Your task to perform on an android device: turn vacation reply on in the gmail app Image 0: 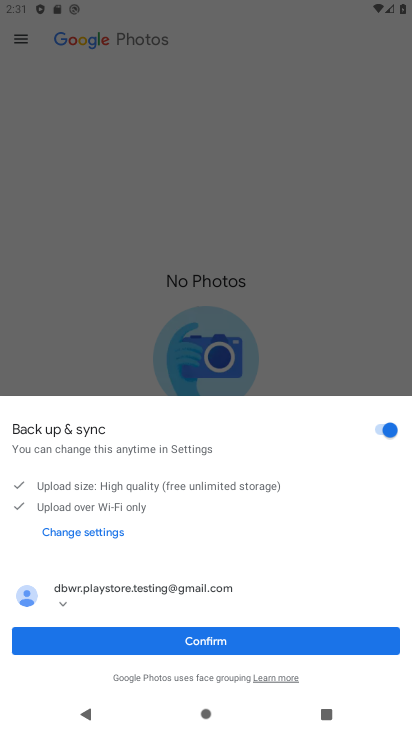
Step 0: press home button
Your task to perform on an android device: turn vacation reply on in the gmail app Image 1: 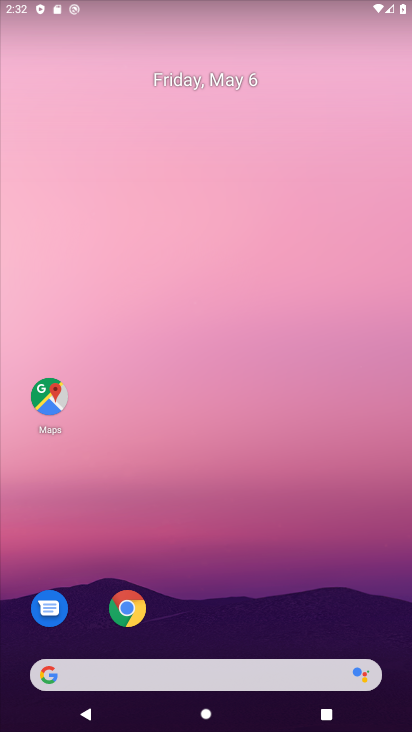
Step 1: drag from (207, 608) to (216, 6)
Your task to perform on an android device: turn vacation reply on in the gmail app Image 2: 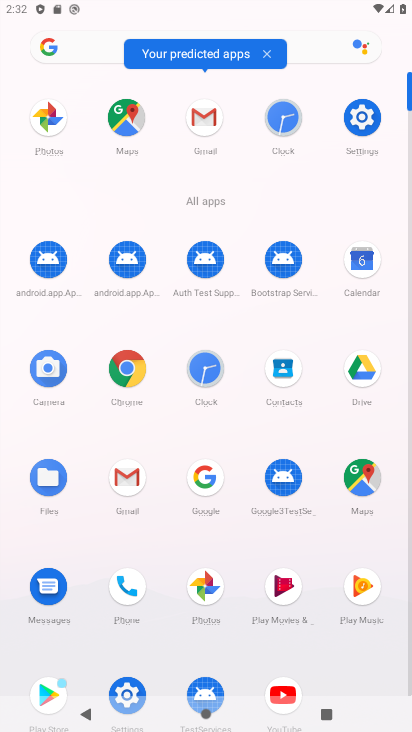
Step 2: click (121, 499)
Your task to perform on an android device: turn vacation reply on in the gmail app Image 3: 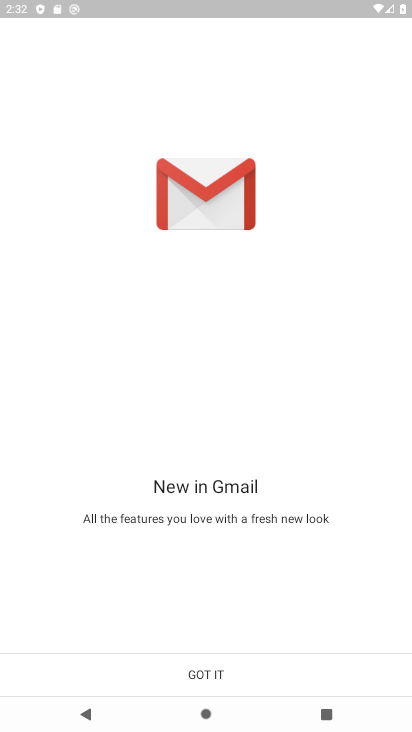
Step 3: click (227, 665)
Your task to perform on an android device: turn vacation reply on in the gmail app Image 4: 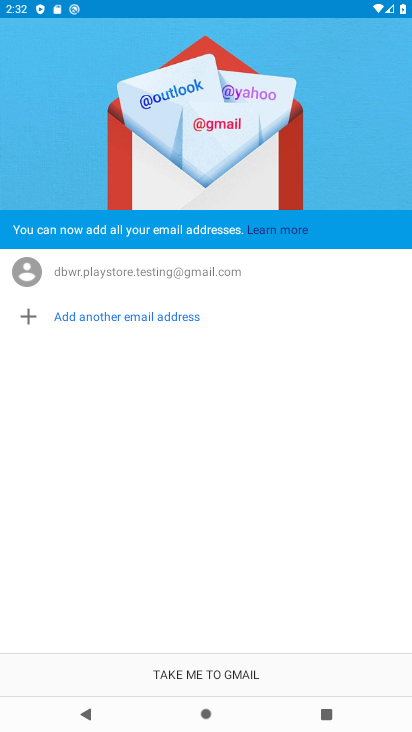
Step 4: click (190, 670)
Your task to perform on an android device: turn vacation reply on in the gmail app Image 5: 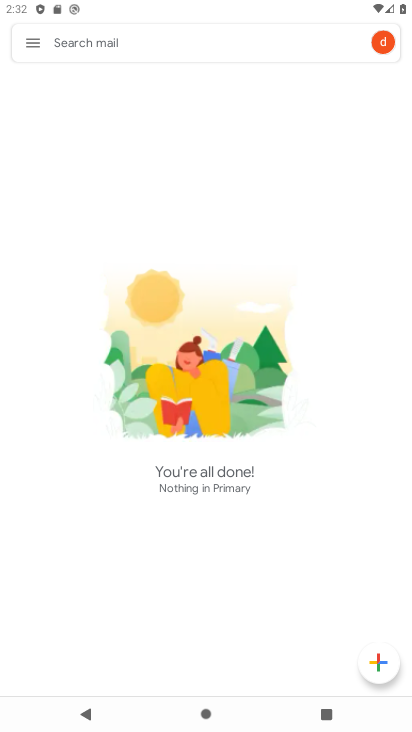
Step 5: click (41, 42)
Your task to perform on an android device: turn vacation reply on in the gmail app Image 6: 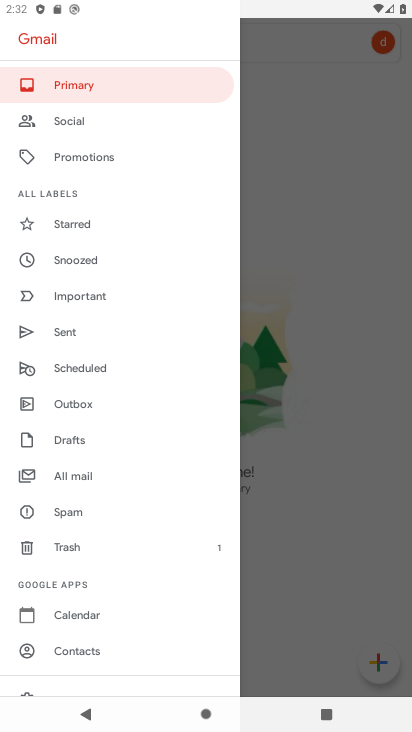
Step 6: drag from (86, 616) to (149, 268)
Your task to perform on an android device: turn vacation reply on in the gmail app Image 7: 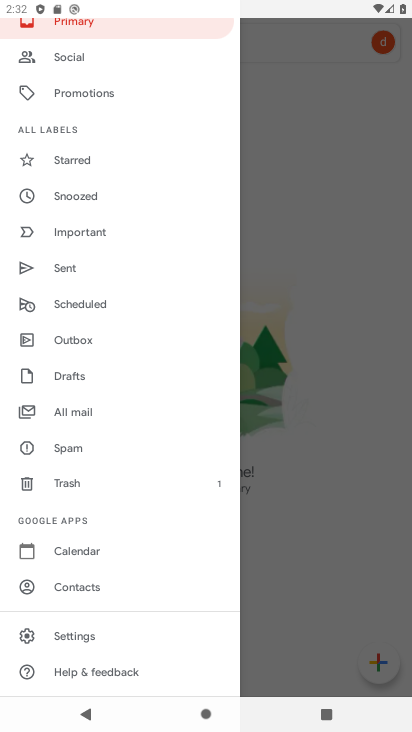
Step 7: click (80, 632)
Your task to perform on an android device: turn vacation reply on in the gmail app Image 8: 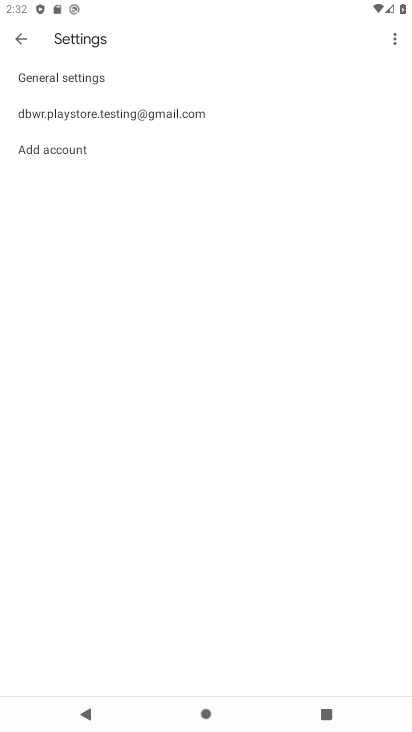
Step 8: click (152, 121)
Your task to perform on an android device: turn vacation reply on in the gmail app Image 9: 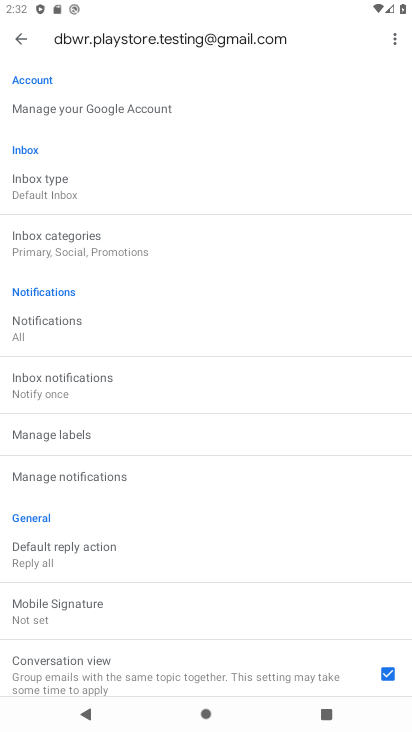
Step 9: drag from (115, 568) to (232, 126)
Your task to perform on an android device: turn vacation reply on in the gmail app Image 10: 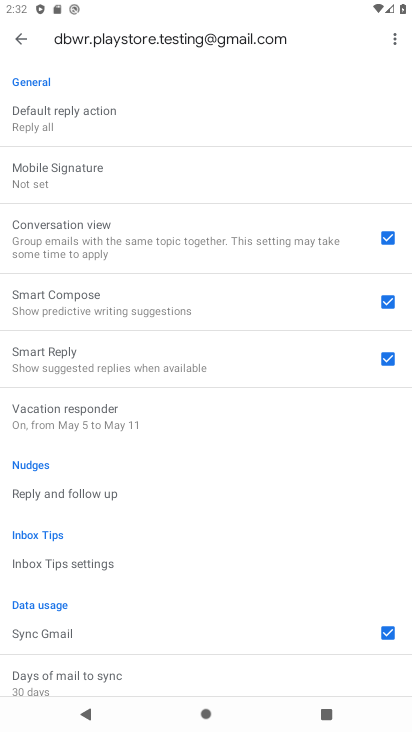
Step 10: drag from (101, 596) to (233, 163)
Your task to perform on an android device: turn vacation reply on in the gmail app Image 11: 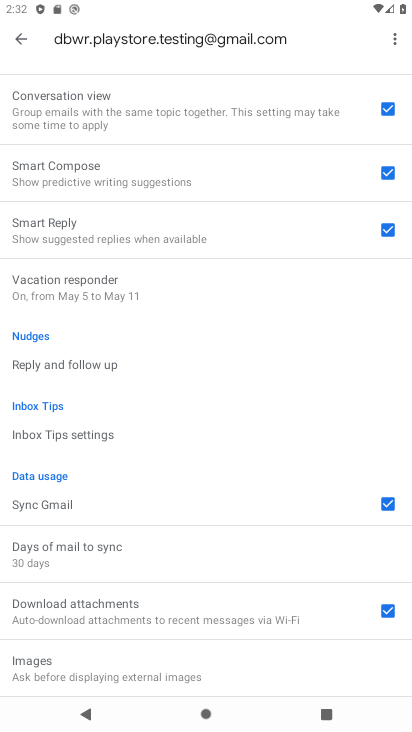
Step 11: click (113, 288)
Your task to perform on an android device: turn vacation reply on in the gmail app Image 12: 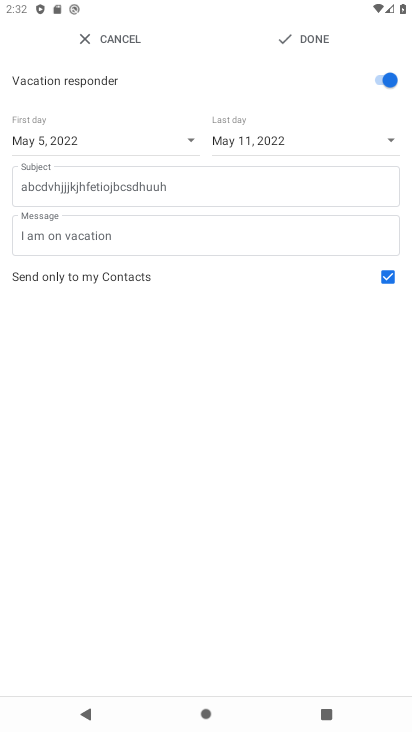
Step 12: task complete